Your task to perform on an android device: turn notification dots on Image 0: 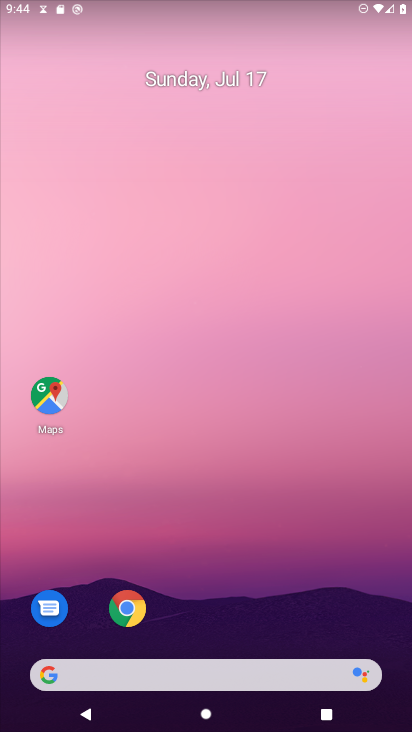
Step 0: drag from (183, 677) to (245, 281)
Your task to perform on an android device: turn notification dots on Image 1: 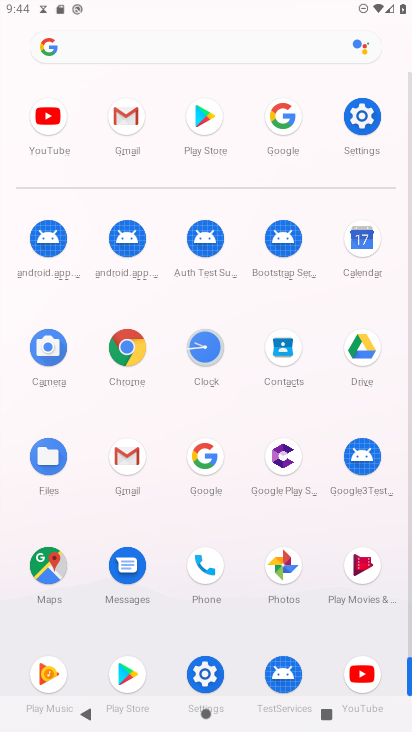
Step 1: click (362, 117)
Your task to perform on an android device: turn notification dots on Image 2: 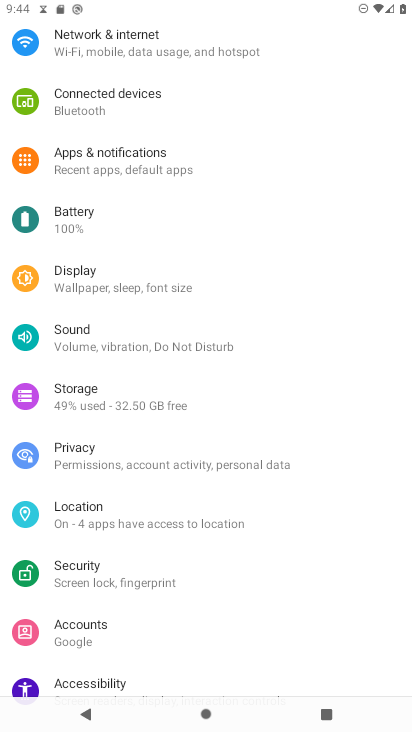
Step 2: drag from (115, 402) to (138, 351)
Your task to perform on an android device: turn notification dots on Image 3: 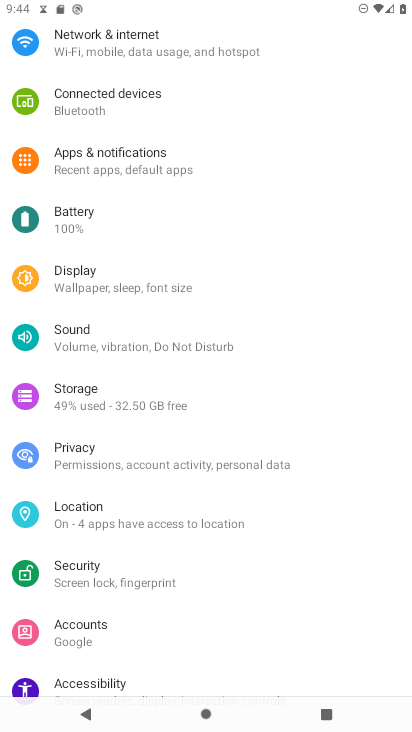
Step 3: click (119, 172)
Your task to perform on an android device: turn notification dots on Image 4: 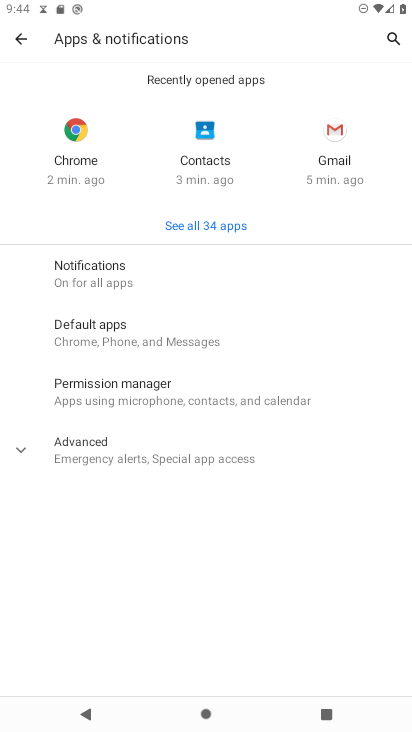
Step 4: click (79, 266)
Your task to perform on an android device: turn notification dots on Image 5: 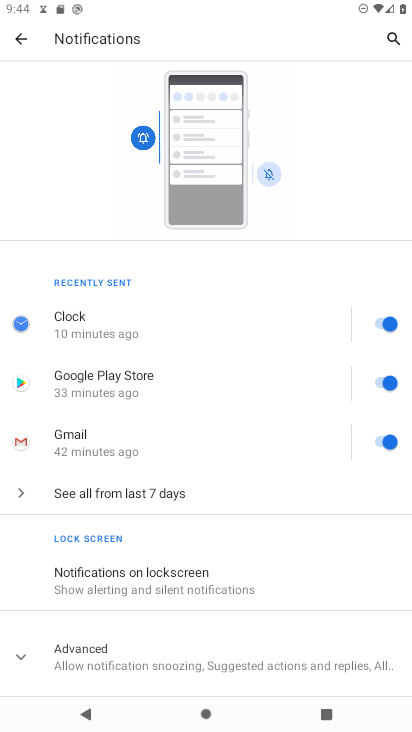
Step 5: click (195, 671)
Your task to perform on an android device: turn notification dots on Image 6: 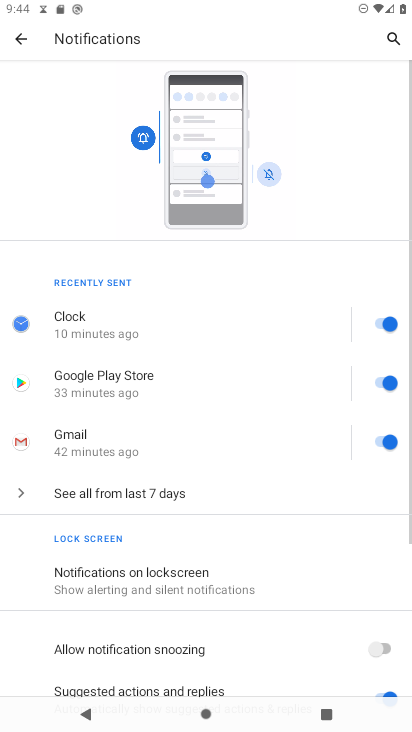
Step 6: task complete